Your task to perform on an android device: make emails show in primary in the gmail app Image 0: 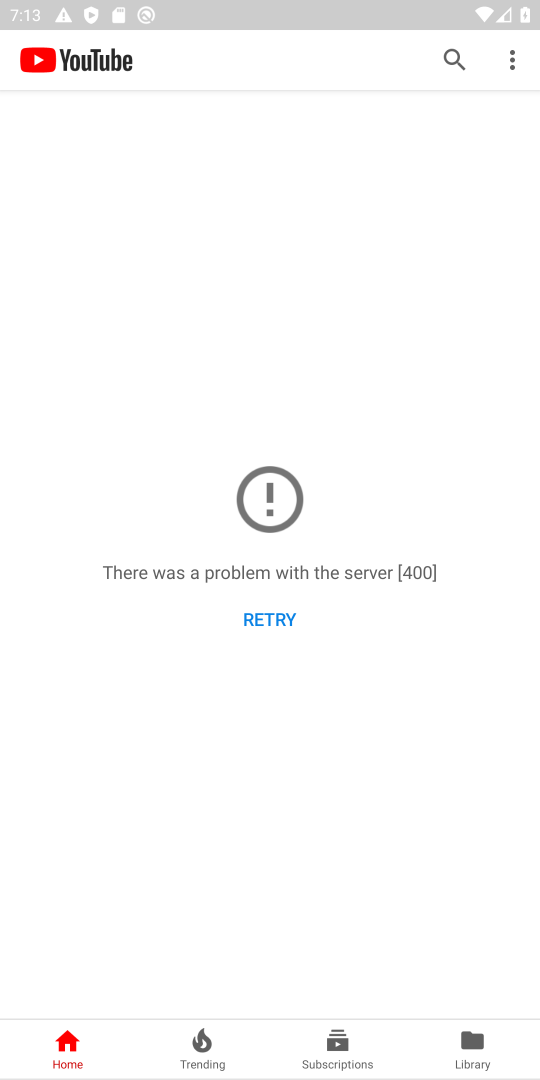
Step 0: press home button
Your task to perform on an android device: make emails show in primary in the gmail app Image 1: 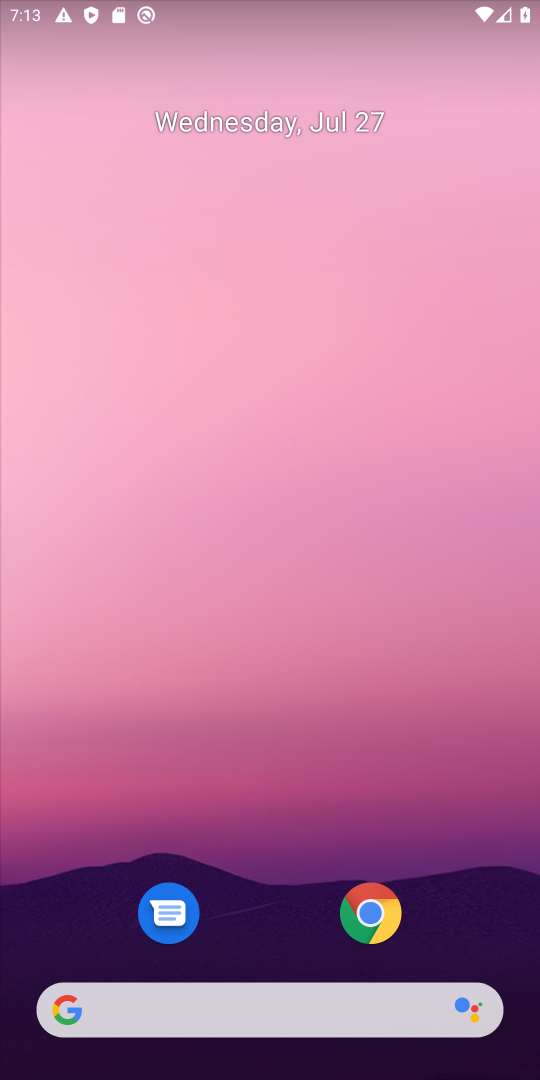
Step 1: drag from (193, 1075) to (413, 188)
Your task to perform on an android device: make emails show in primary in the gmail app Image 2: 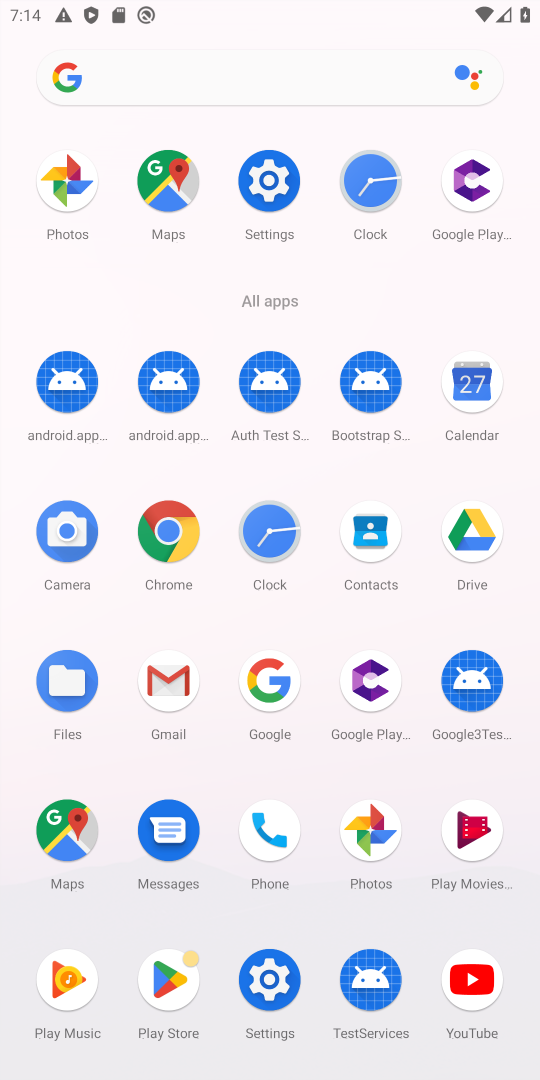
Step 2: click (185, 688)
Your task to perform on an android device: make emails show in primary in the gmail app Image 3: 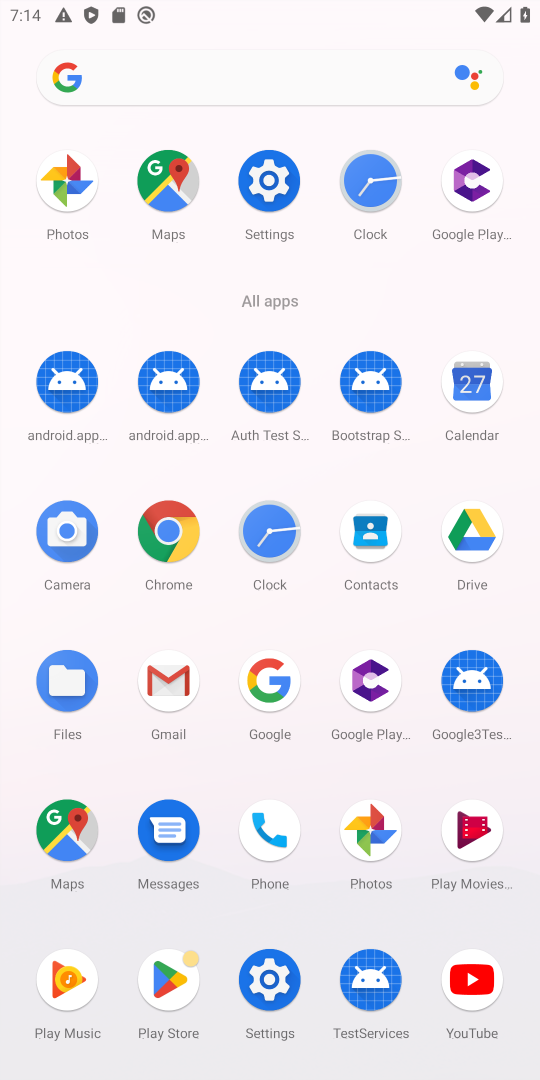
Step 3: click (185, 688)
Your task to perform on an android device: make emails show in primary in the gmail app Image 4: 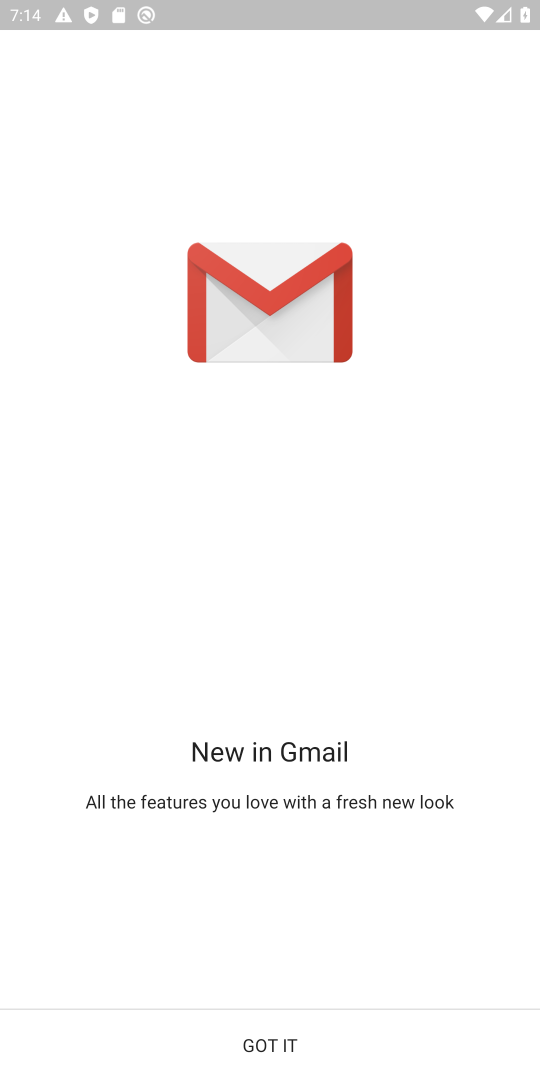
Step 4: click (164, 1056)
Your task to perform on an android device: make emails show in primary in the gmail app Image 5: 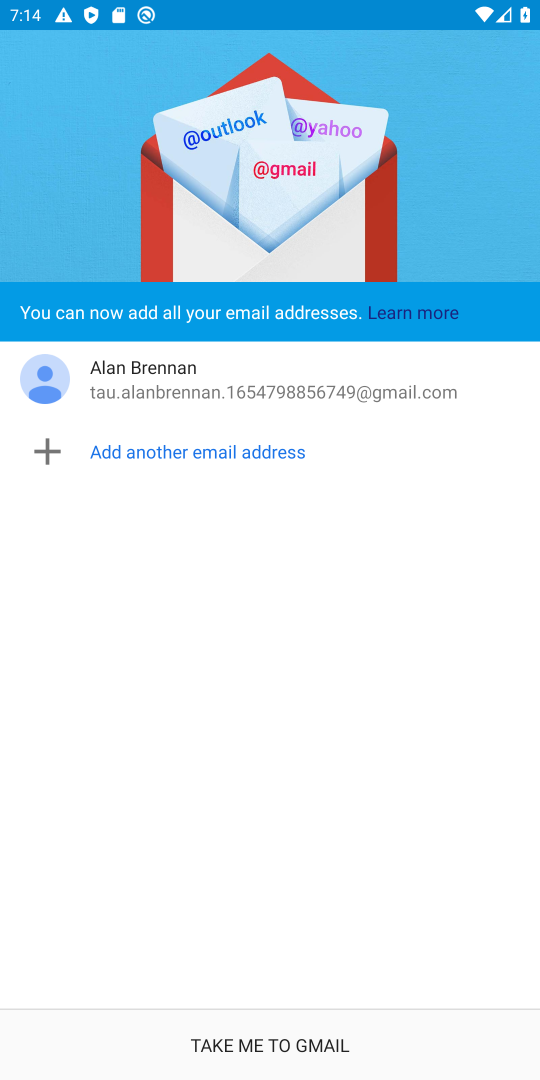
Step 5: click (164, 1056)
Your task to perform on an android device: make emails show in primary in the gmail app Image 6: 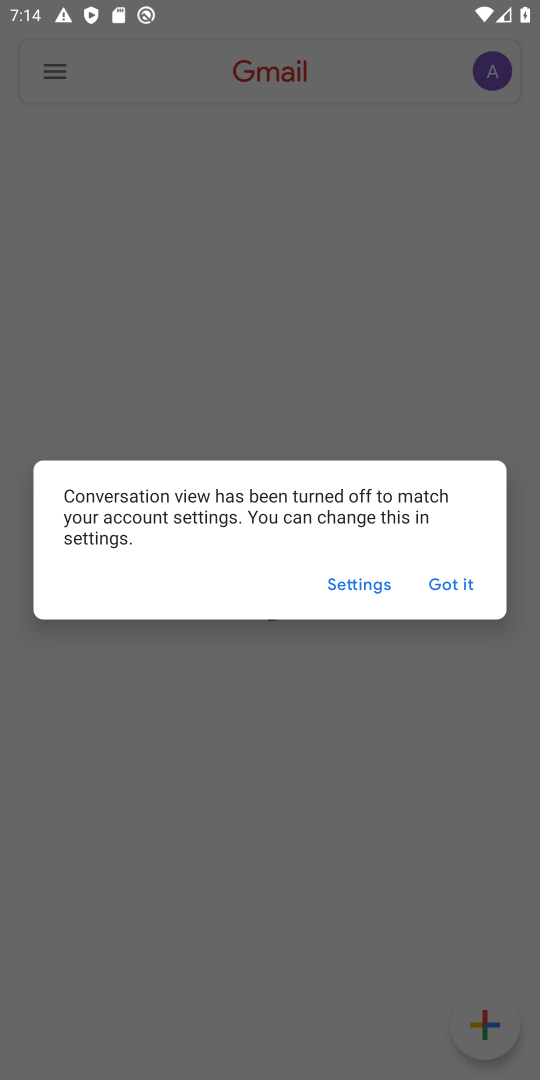
Step 6: click (443, 588)
Your task to perform on an android device: make emails show in primary in the gmail app Image 7: 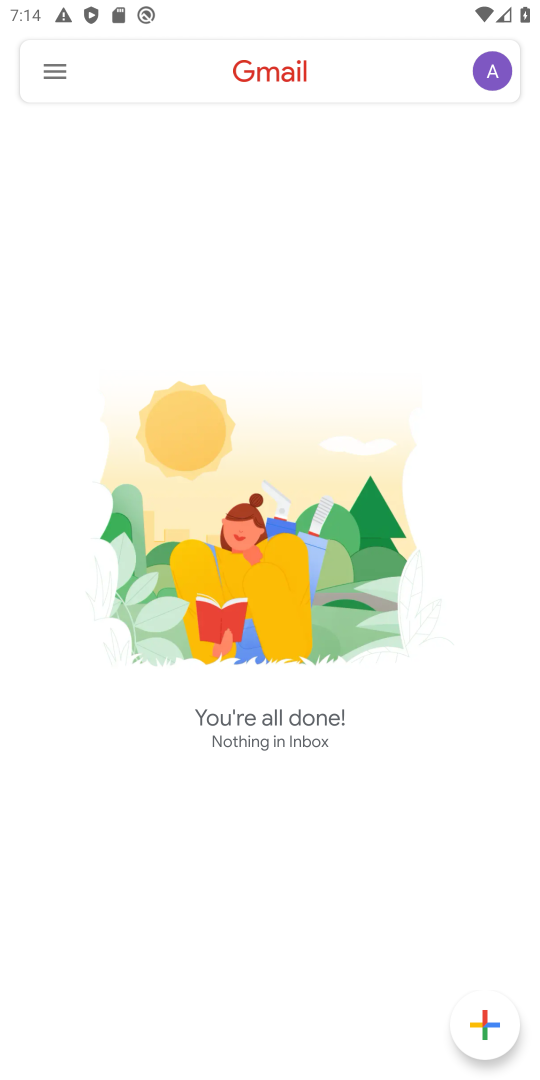
Step 7: click (40, 65)
Your task to perform on an android device: make emails show in primary in the gmail app Image 8: 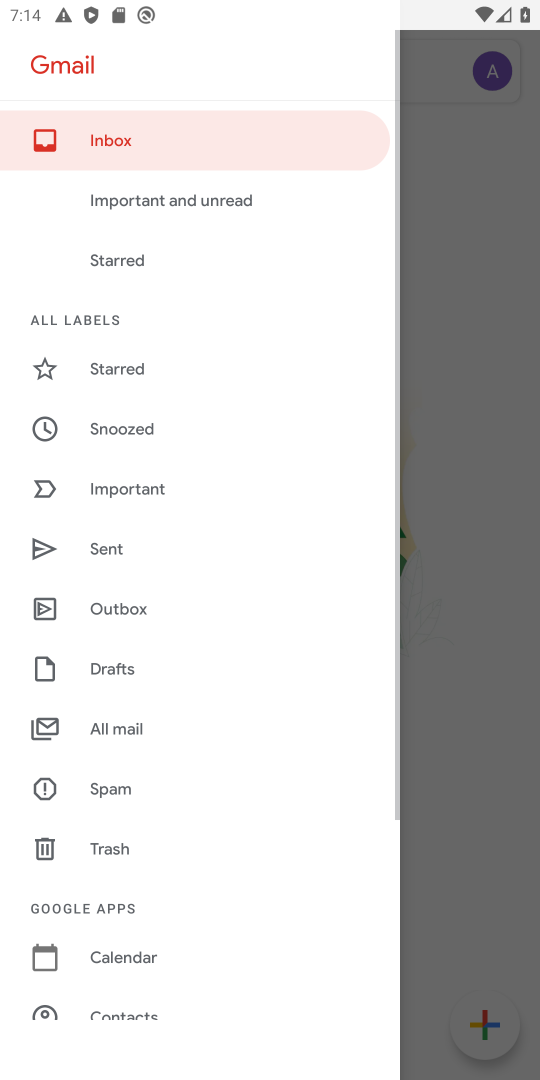
Step 8: drag from (258, 976) to (304, 251)
Your task to perform on an android device: make emails show in primary in the gmail app Image 9: 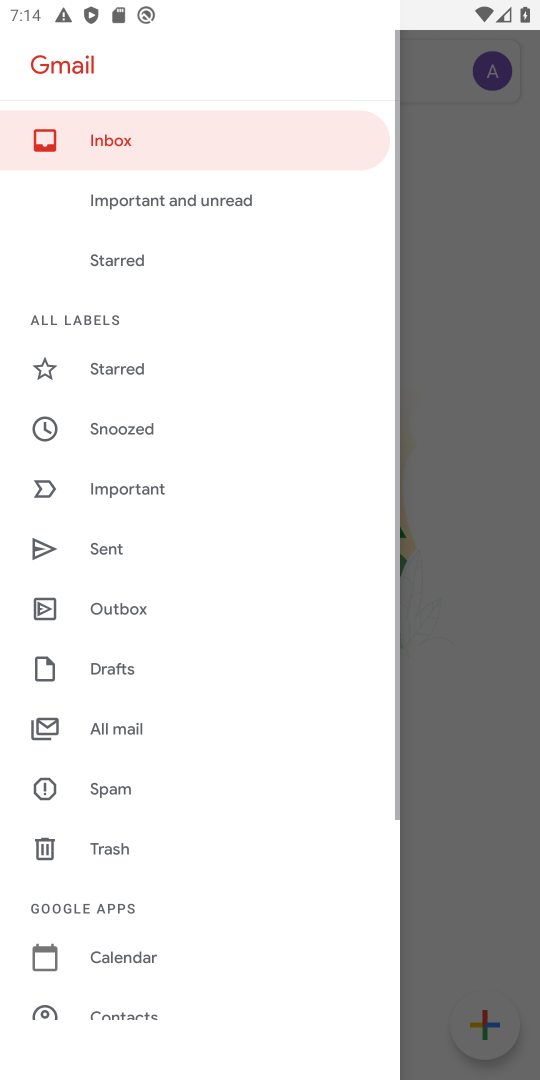
Step 9: drag from (244, 965) to (318, 57)
Your task to perform on an android device: make emails show in primary in the gmail app Image 10: 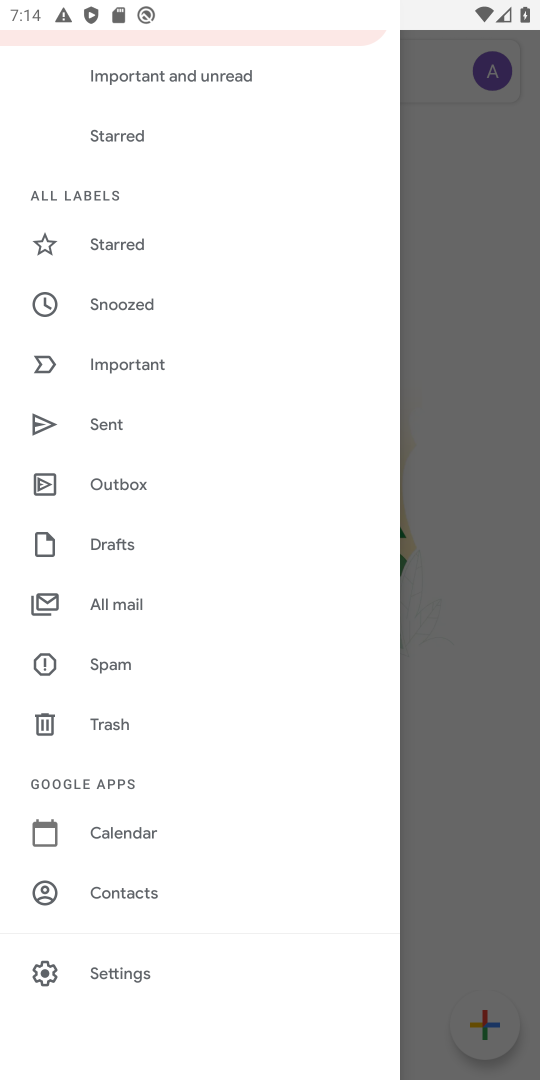
Step 10: click (105, 977)
Your task to perform on an android device: make emails show in primary in the gmail app Image 11: 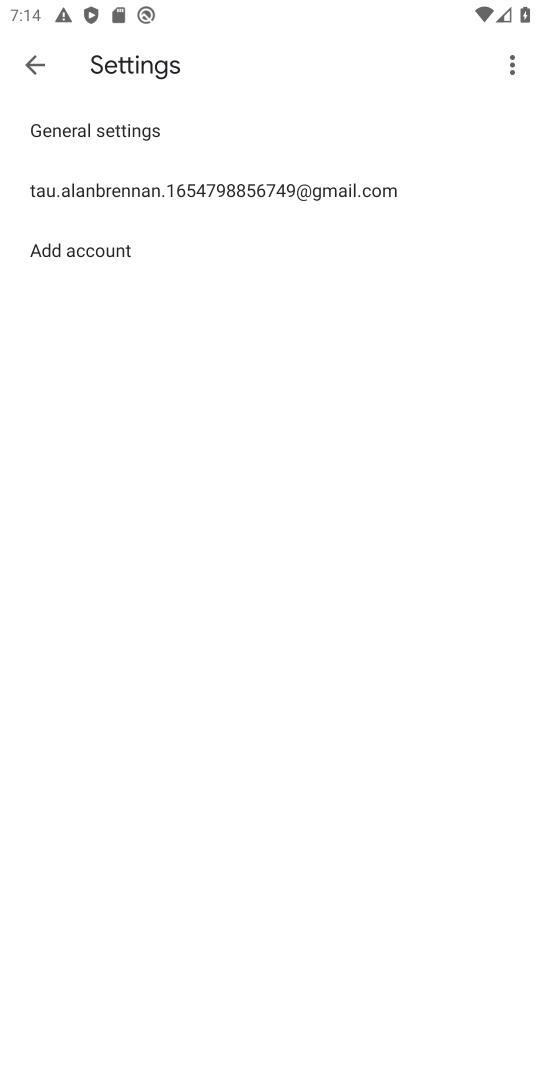
Step 11: click (165, 194)
Your task to perform on an android device: make emails show in primary in the gmail app Image 12: 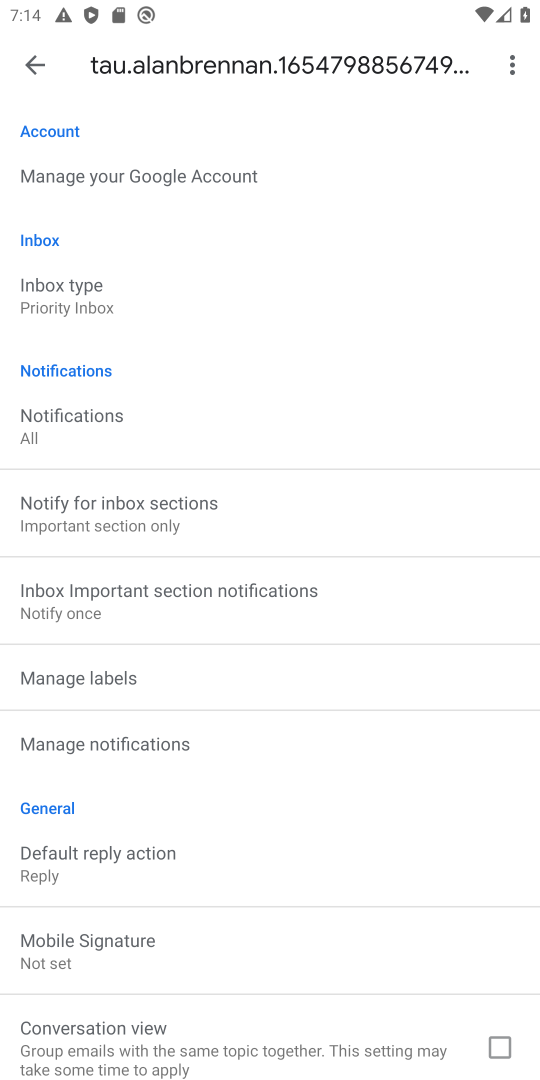
Step 12: click (78, 303)
Your task to perform on an android device: make emails show in primary in the gmail app Image 13: 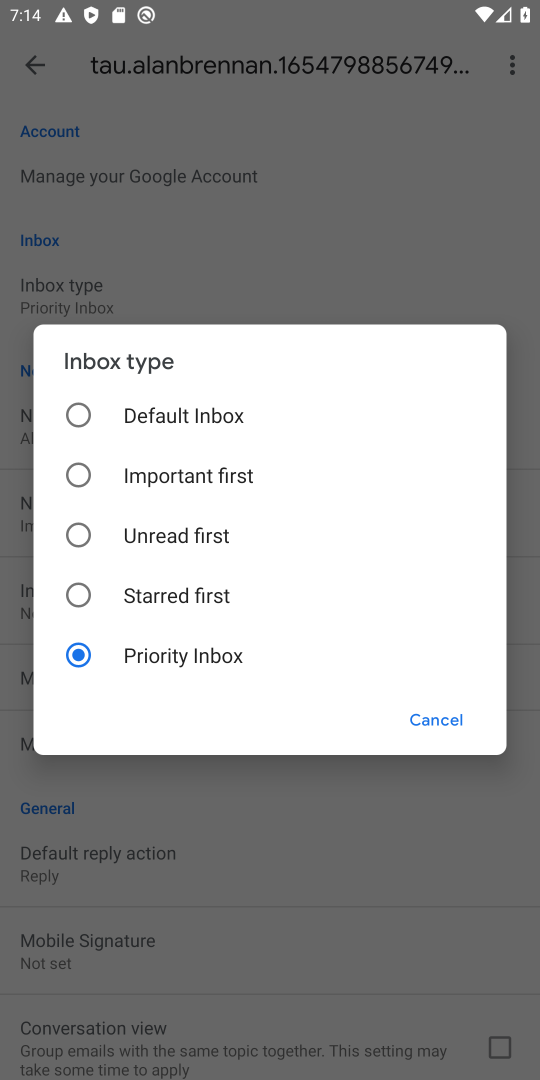
Step 13: click (165, 407)
Your task to perform on an android device: make emails show in primary in the gmail app Image 14: 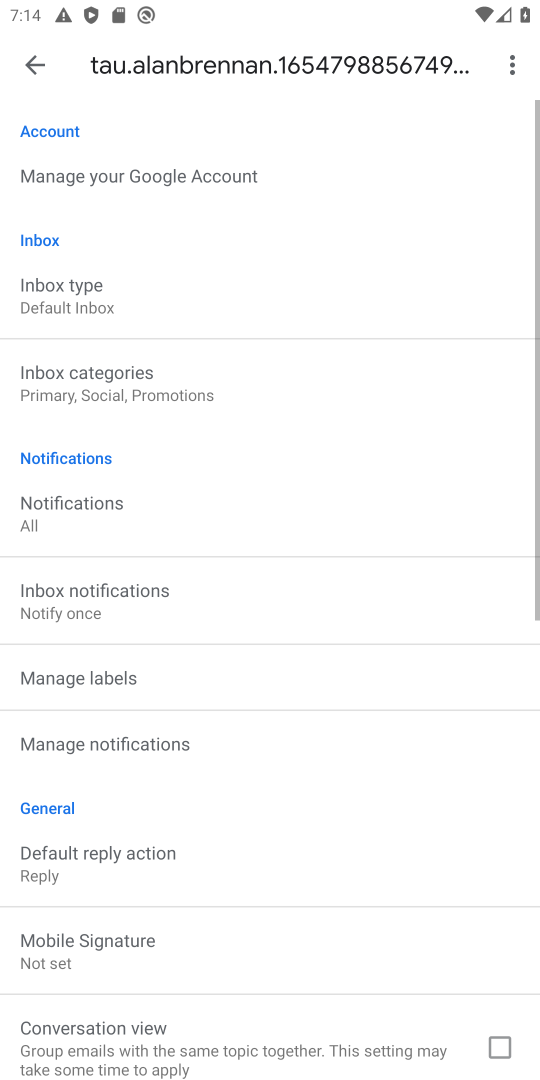
Step 14: click (171, 382)
Your task to perform on an android device: make emails show in primary in the gmail app Image 15: 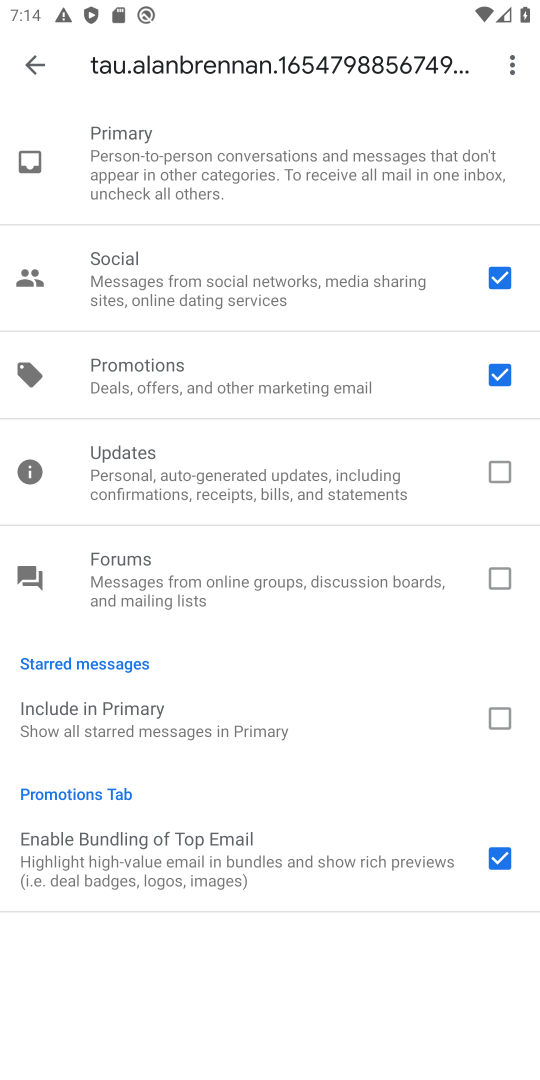
Step 15: click (499, 290)
Your task to perform on an android device: make emails show in primary in the gmail app Image 16: 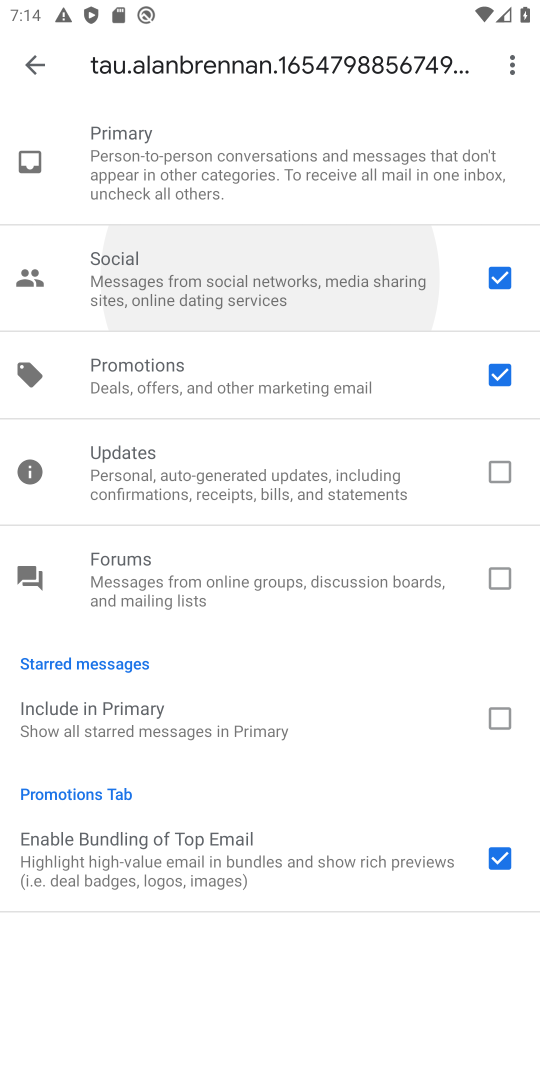
Step 16: click (498, 373)
Your task to perform on an android device: make emails show in primary in the gmail app Image 17: 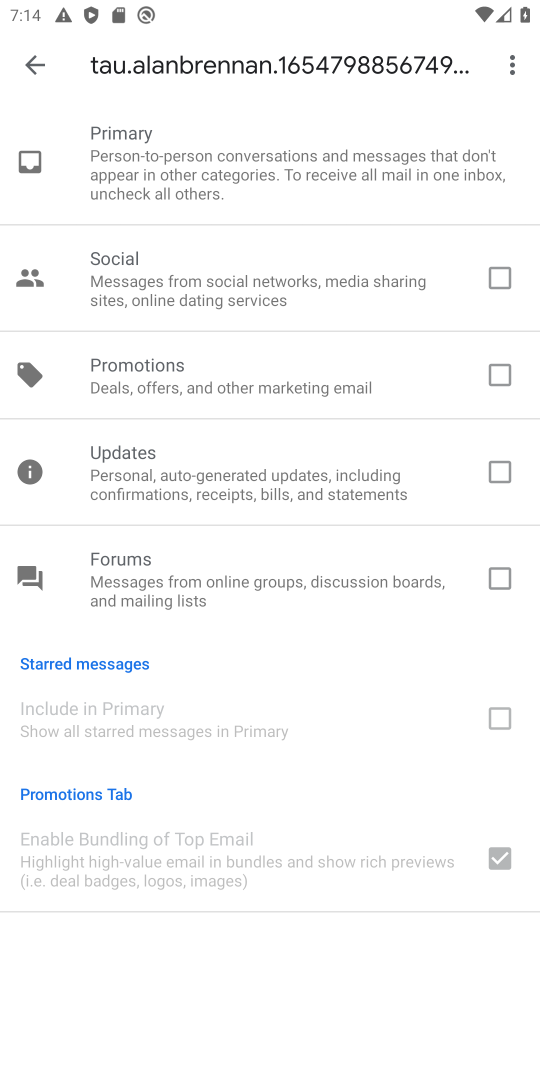
Step 17: task complete